Your task to perform on an android device: What's the price of the new iPhone Image 0: 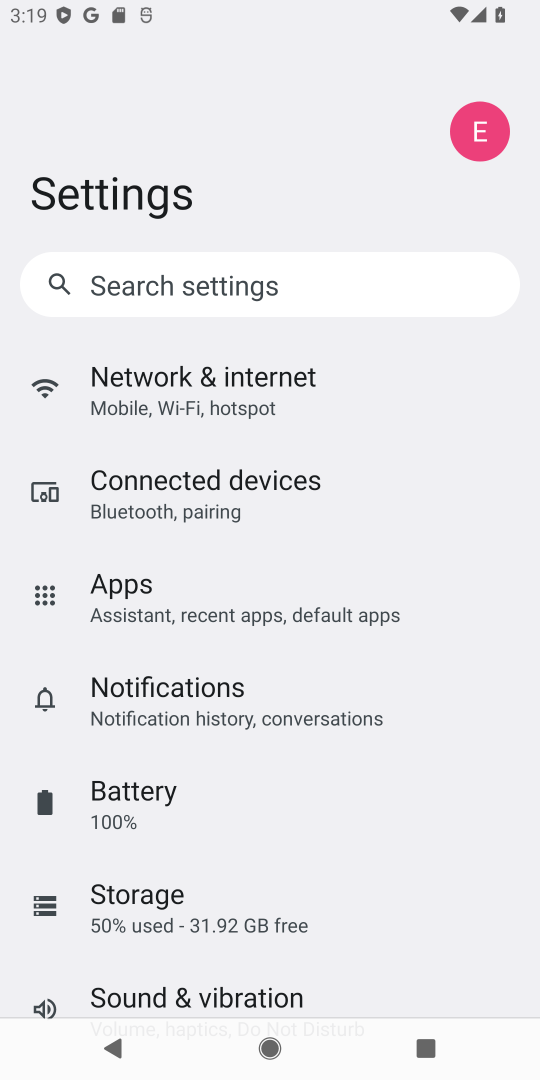
Step 0: press home button
Your task to perform on an android device: What's the price of the new iPhone Image 1: 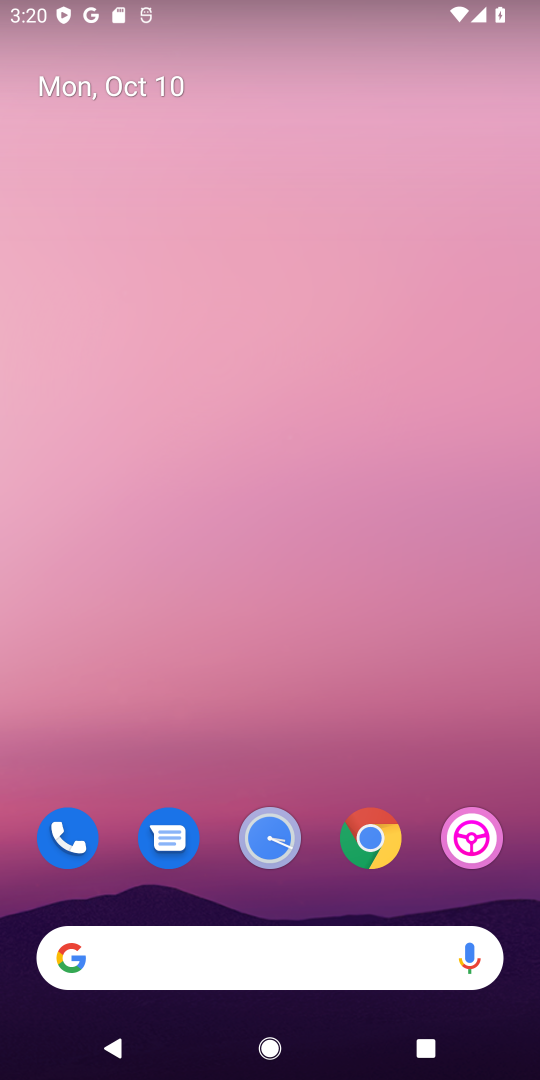
Step 1: click (180, 984)
Your task to perform on an android device: What's the price of the new iPhone Image 2: 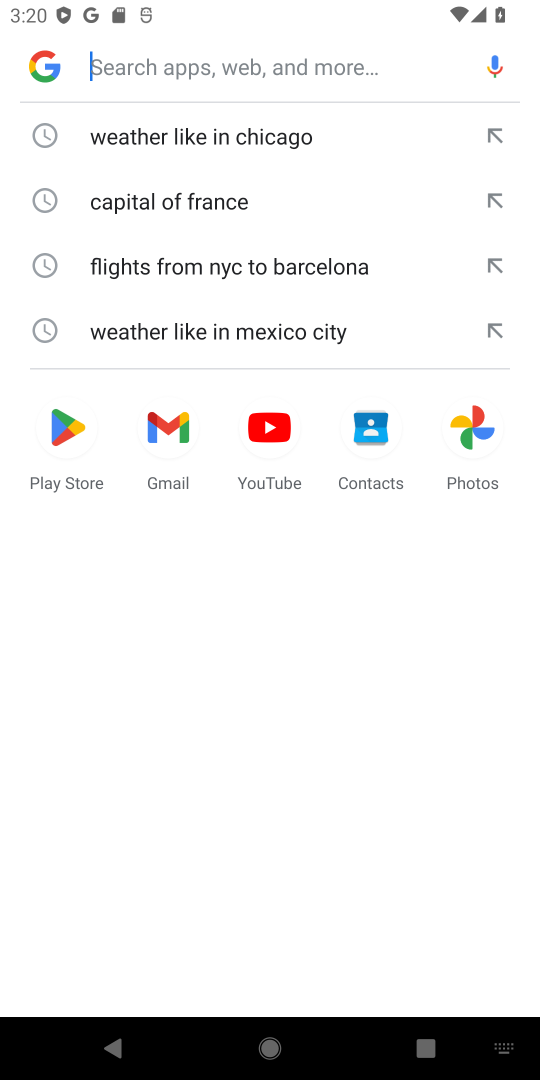
Step 2: type "price of the new iPhone"
Your task to perform on an android device: What's the price of the new iPhone Image 3: 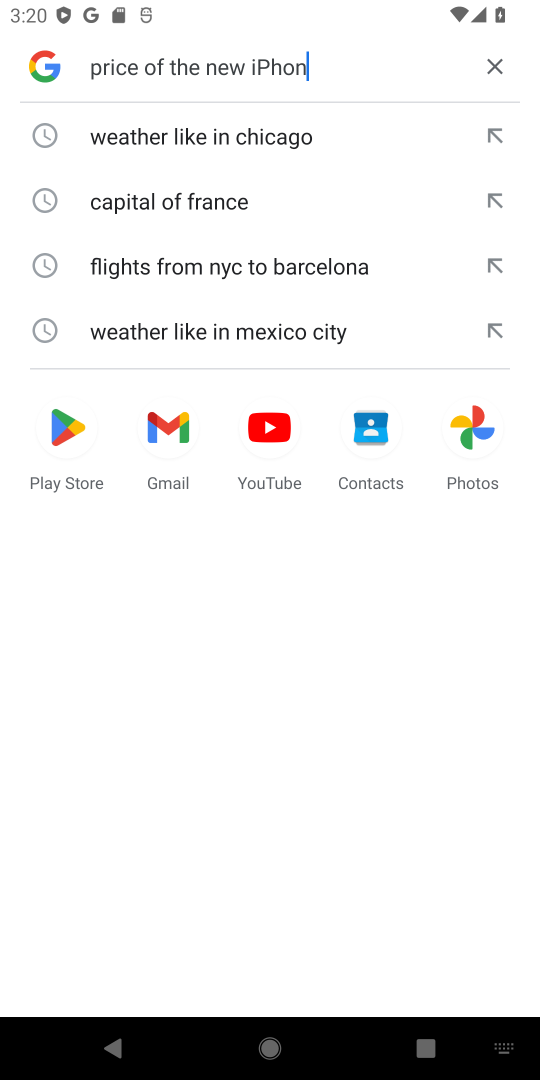
Step 3: type ""
Your task to perform on an android device: What's the price of the new iPhone Image 4: 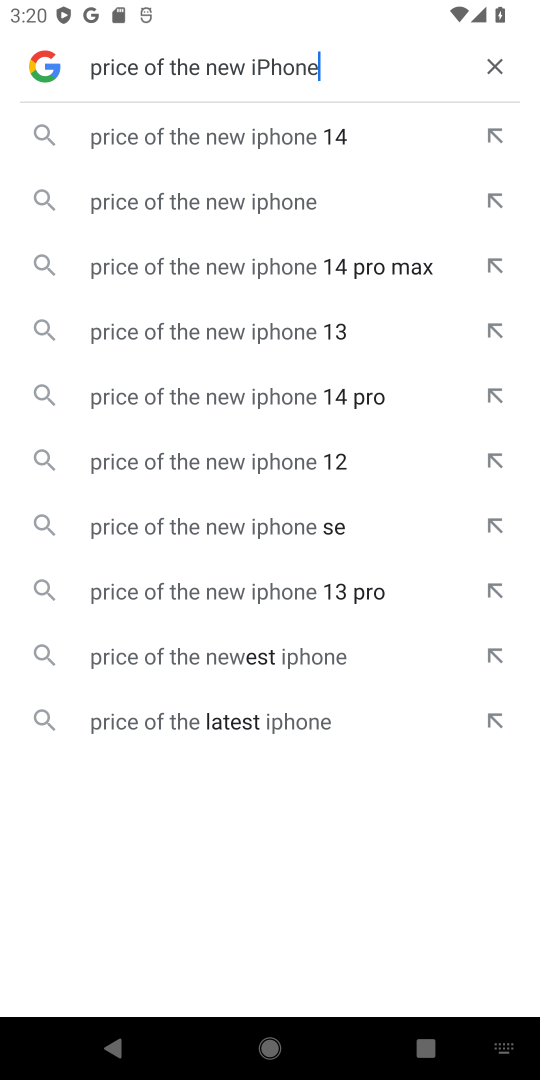
Step 4: click (350, 145)
Your task to perform on an android device: What's the price of the new iPhone Image 5: 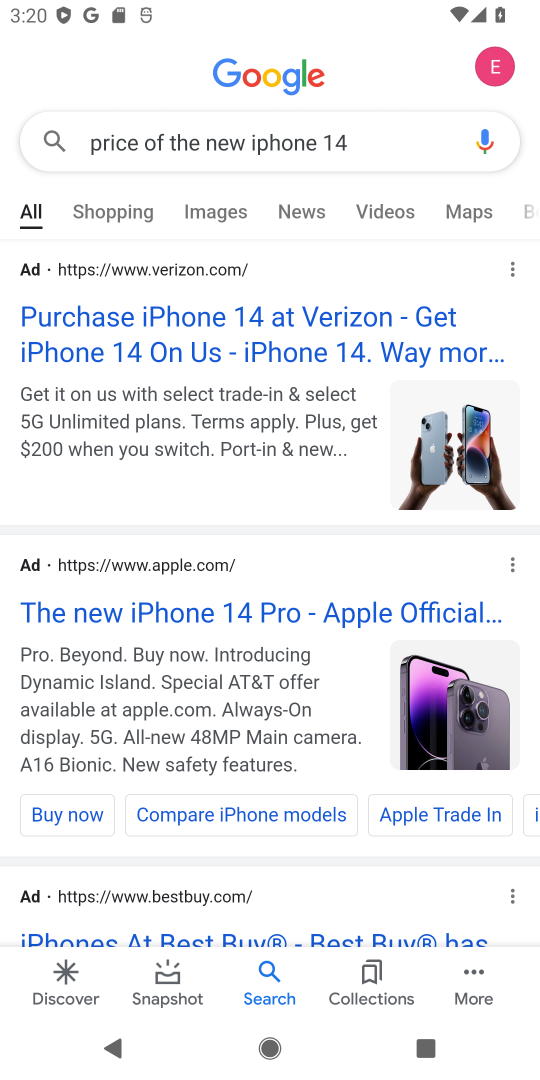
Step 5: task complete